Your task to perform on an android device: What's the latest video from GameSpot News? Image 0: 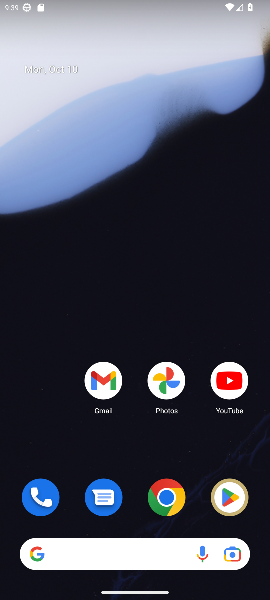
Step 0: drag from (112, 458) to (122, 223)
Your task to perform on an android device: What's the latest video from GameSpot News? Image 1: 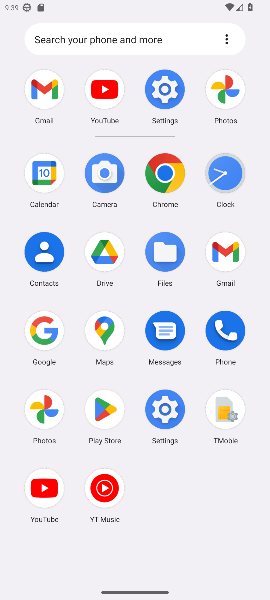
Step 1: click (45, 328)
Your task to perform on an android device: What's the latest video from GameSpot News? Image 2: 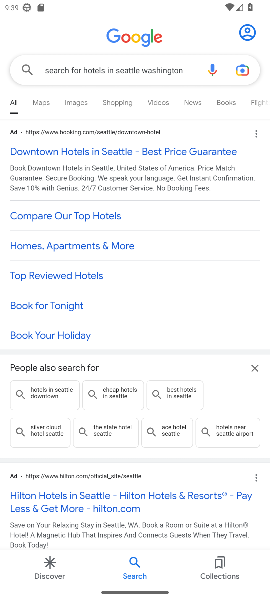
Step 2: click (155, 64)
Your task to perform on an android device: What's the latest video from GameSpot News? Image 3: 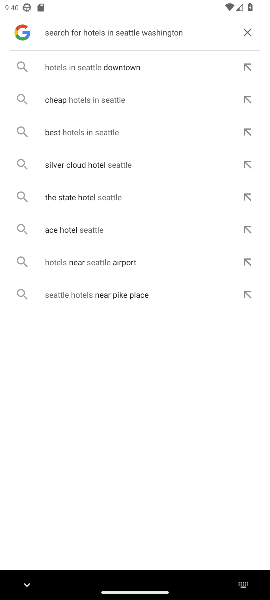
Step 3: click (241, 41)
Your task to perform on an android device: What's the latest video from GameSpot News? Image 4: 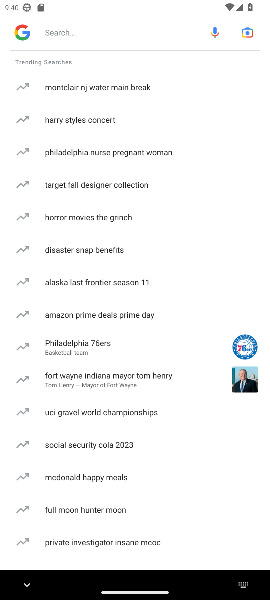
Step 4: click (115, 21)
Your task to perform on an android device: What's the latest video from GameSpot News? Image 5: 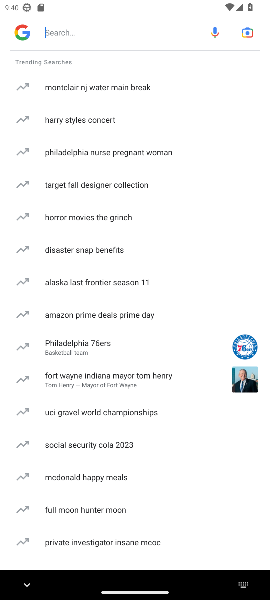
Step 5: type "What's the latest video from GameSpot News? "
Your task to perform on an android device: What's the latest video from GameSpot News? Image 6: 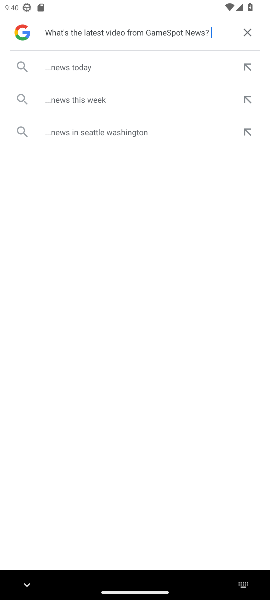
Step 6: click (88, 67)
Your task to perform on an android device: What's the latest video from GameSpot News? Image 7: 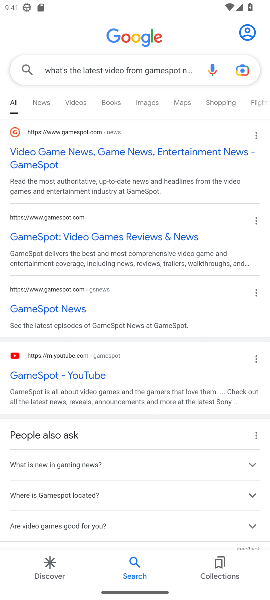
Step 7: click (64, 152)
Your task to perform on an android device: What's the latest video from GameSpot News? Image 8: 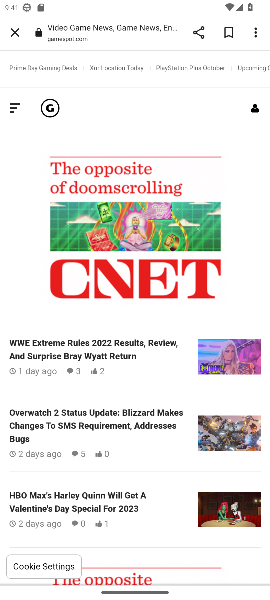
Step 8: drag from (133, 512) to (133, 177)
Your task to perform on an android device: What's the latest video from GameSpot News? Image 9: 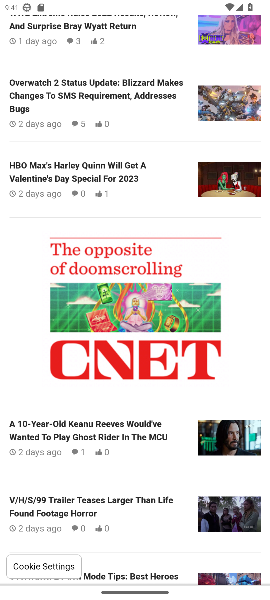
Step 9: drag from (45, 203) to (42, 323)
Your task to perform on an android device: What's the latest video from GameSpot News? Image 10: 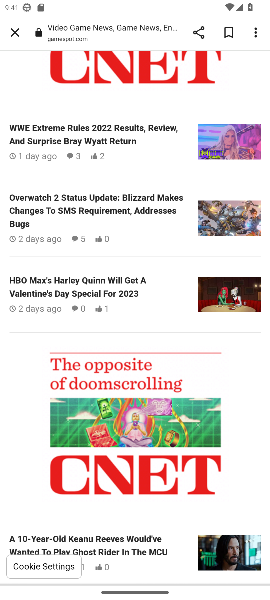
Step 10: click (19, 38)
Your task to perform on an android device: What's the latest video from GameSpot News? Image 11: 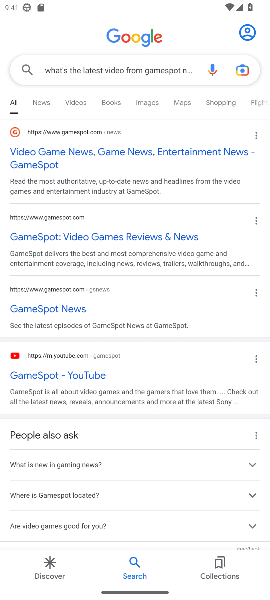
Step 11: click (92, 238)
Your task to perform on an android device: What's the latest video from GameSpot News? Image 12: 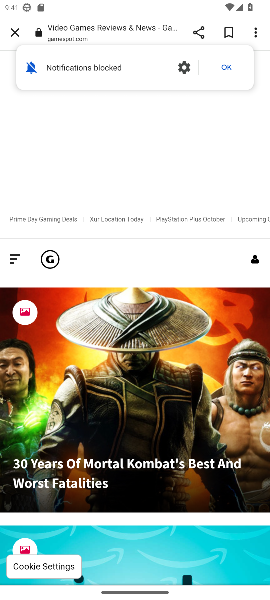
Step 12: task complete